Your task to perform on an android device: open chrome privacy settings Image 0: 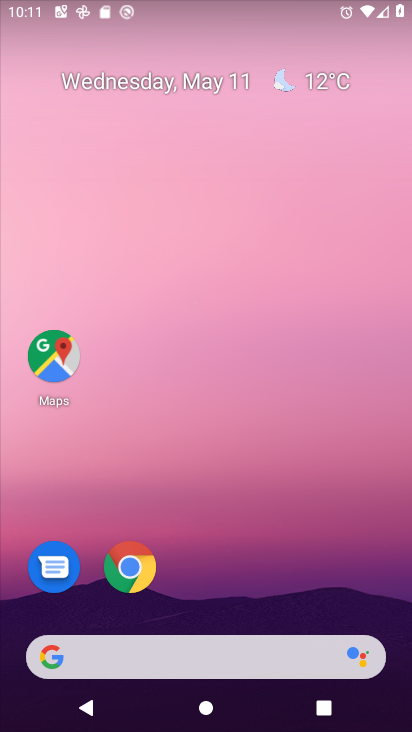
Step 0: click (131, 556)
Your task to perform on an android device: open chrome privacy settings Image 1: 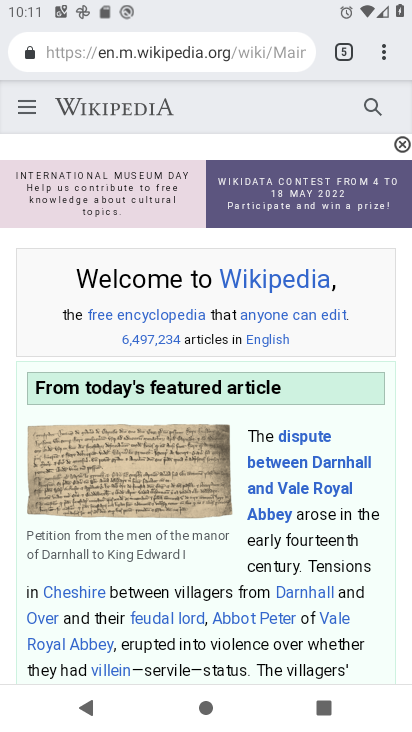
Step 1: click (378, 41)
Your task to perform on an android device: open chrome privacy settings Image 2: 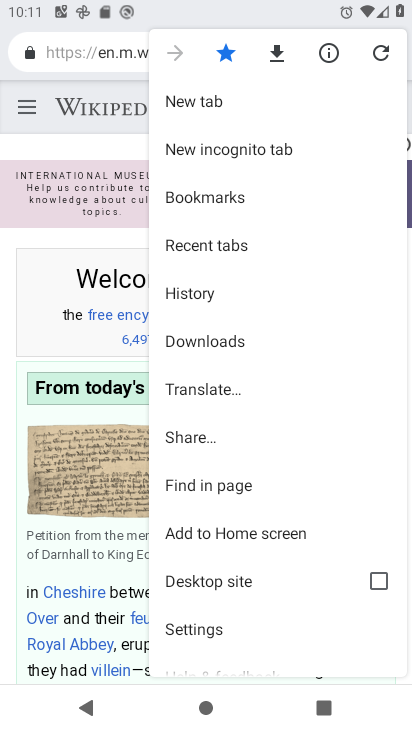
Step 2: click (211, 630)
Your task to perform on an android device: open chrome privacy settings Image 3: 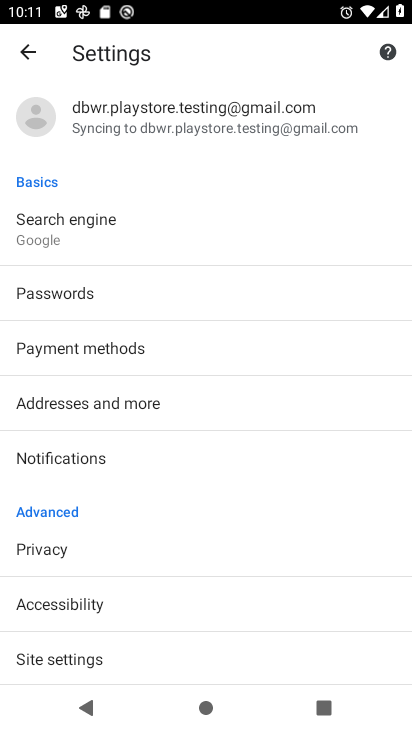
Step 3: click (66, 549)
Your task to perform on an android device: open chrome privacy settings Image 4: 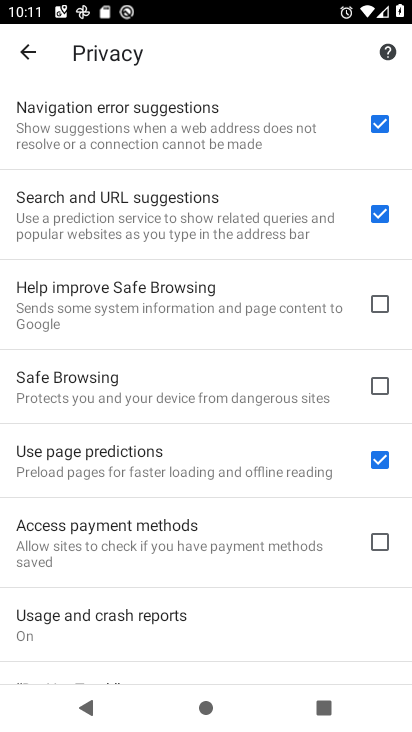
Step 4: task complete